Your task to perform on an android device: snooze an email in the gmail app Image 0: 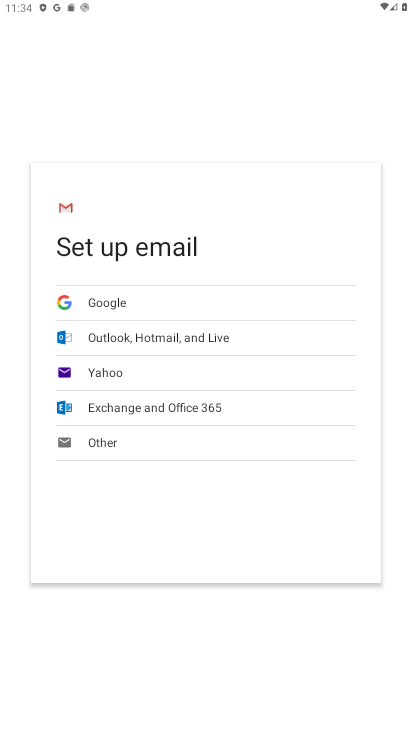
Step 0: press home button
Your task to perform on an android device: snooze an email in the gmail app Image 1: 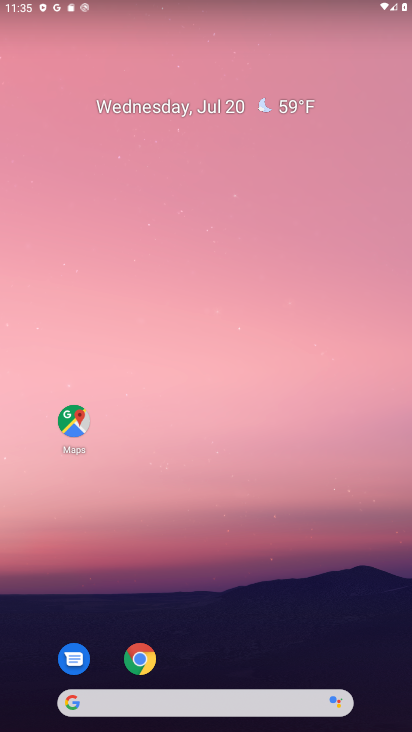
Step 1: drag from (16, 602) to (218, 137)
Your task to perform on an android device: snooze an email in the gmail app Image 2: 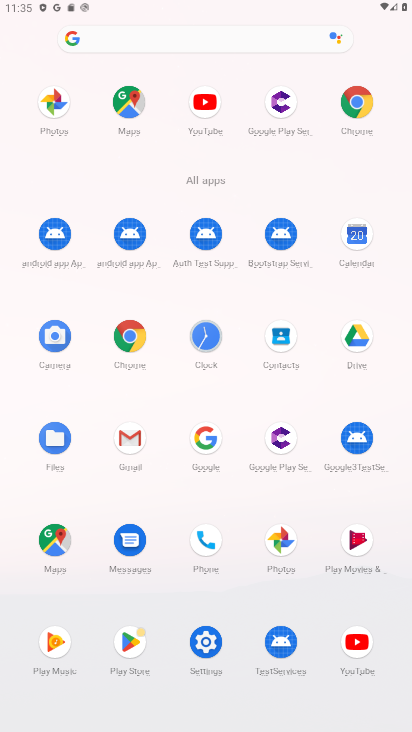
Step 2: click (118, 437)
Your task to perform on an android device: snooze an email in the gmail app Image 3: 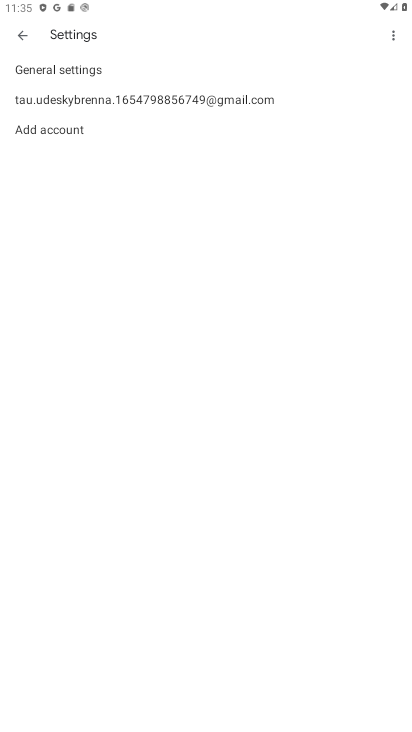
Step 3: click (93, 104)
Your task to perform on an android device: snooze an email in the gmail app Image 4: 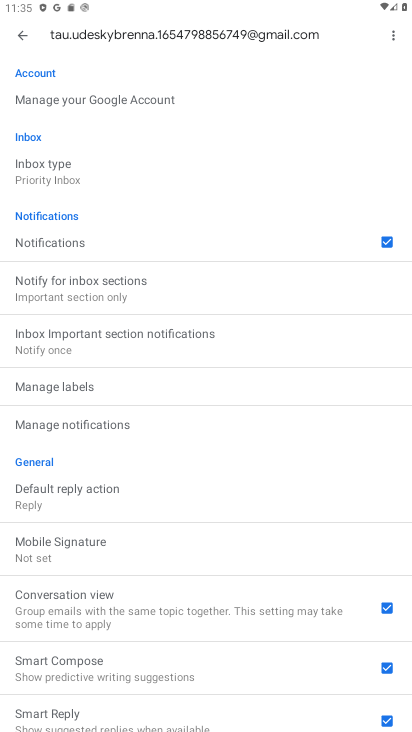
Step 4: press back button
Your task to perform on an android device: snooze an email in the gmail app Image 5: 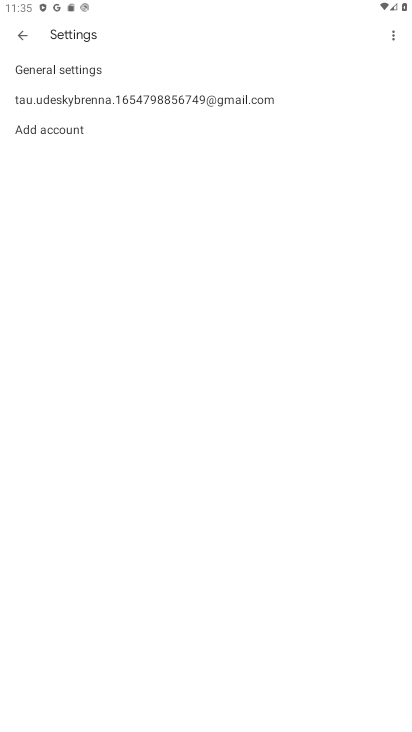
Step 5: press back button
Your task to perform on an android device: snooze an email in the gmail app Image 6: 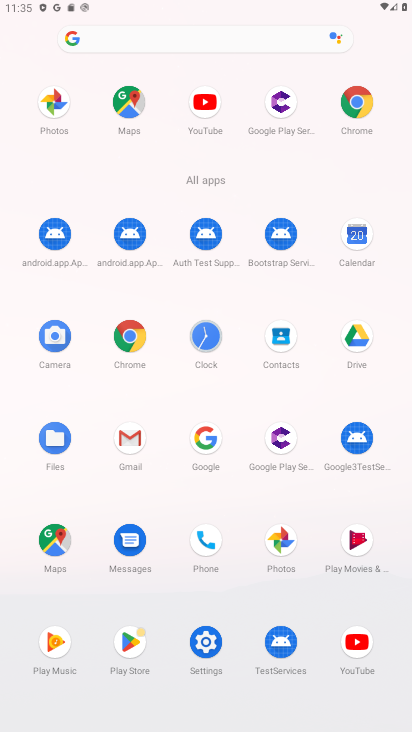
Step 6: click (116, 434)
Your task to perform on an android device: snooze an email in the gmail app Image 7: 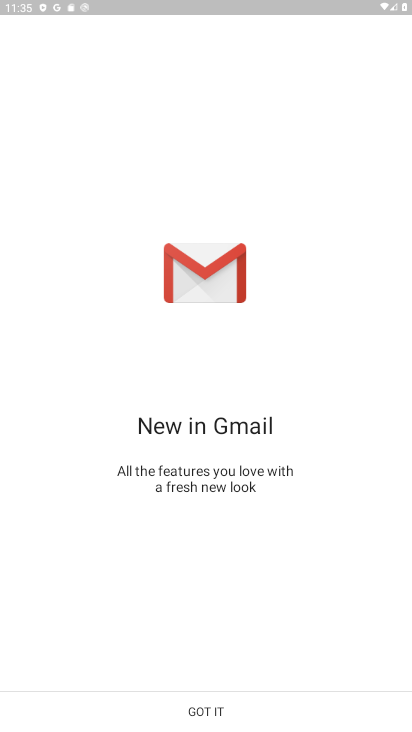
Step 7: click (222, 703)
Your task to perform on an android device: snooze an email in the gmail app Image 8: 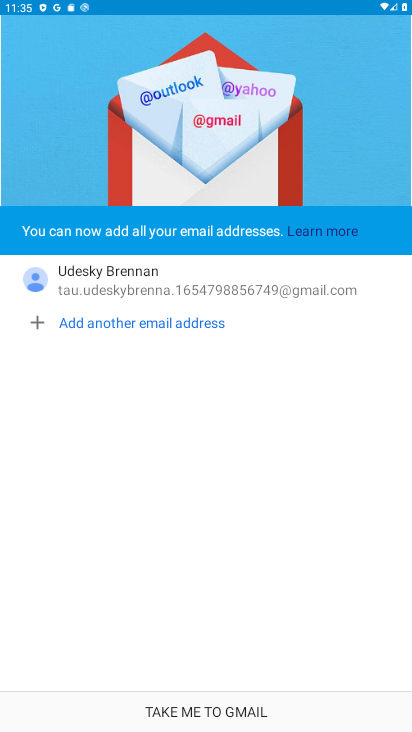
Step 8: click (194, 709)
Your task to perform on an android device: snooze an email in the gmail app Image 9: 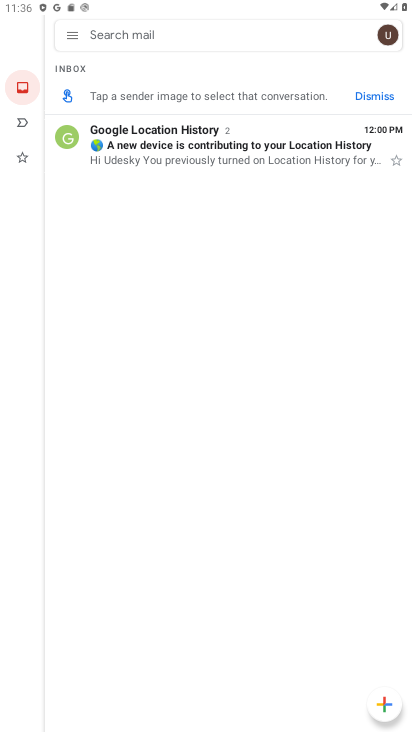
Step 9: click (71, 38)
Your task to perform on an android device: snooze an email in the gmail app Image 10: 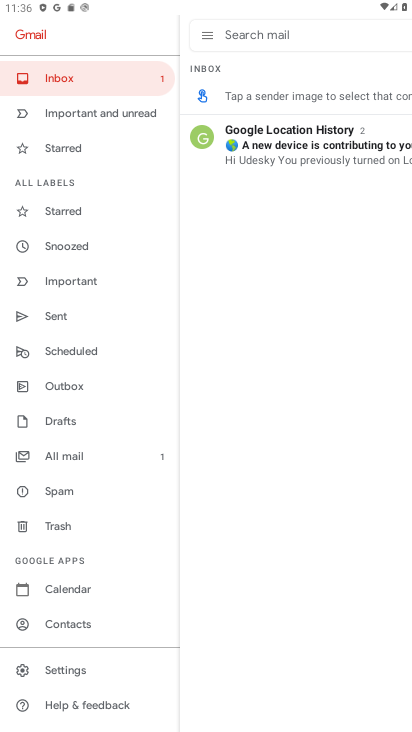
Step 10: click (91, 247)
Your task to perform on an android device: snooze an email in the gmail app Image 11: 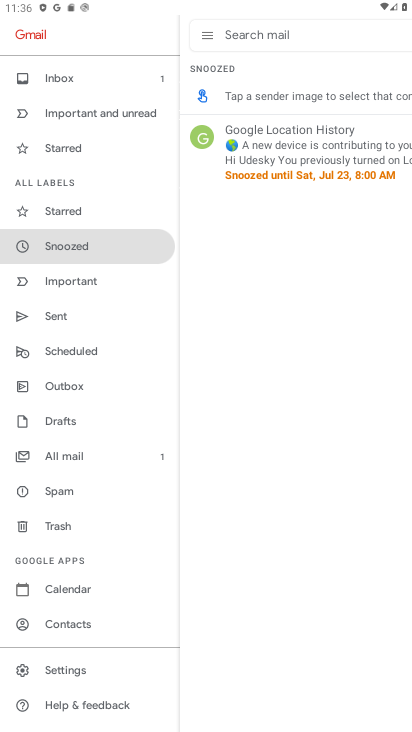
Step 11: task complete